Your task to perform on an android device: Open Youtube and go to the subscriptions tab Image 0: 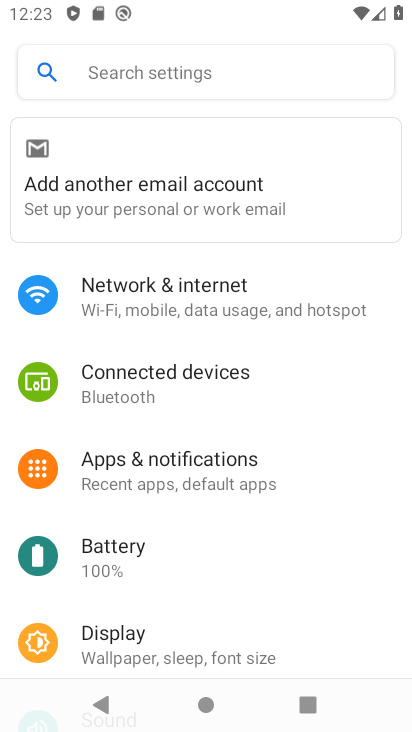
Step 0: press home button
Your task to perform on an android device: Open Youtube and go to the subscriptions tab Image 1: 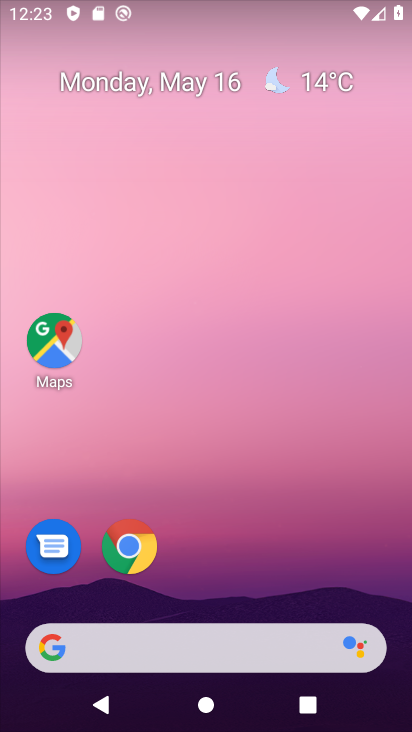
Step 1: drag from (213, 674) to (245, 138)
Your task to perform on an android device: Open Youtube and go to the subscriptions tab Image 2: 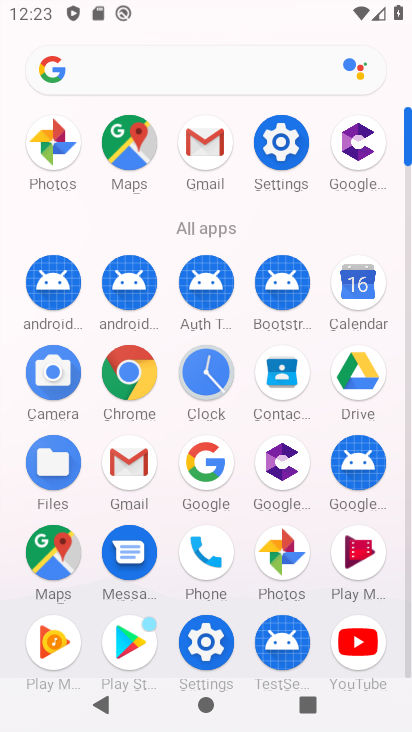
Step 2: click (367, 652)
Your task to perform on an android device: Open Youtube and go to the subscriptions tab Image 3: 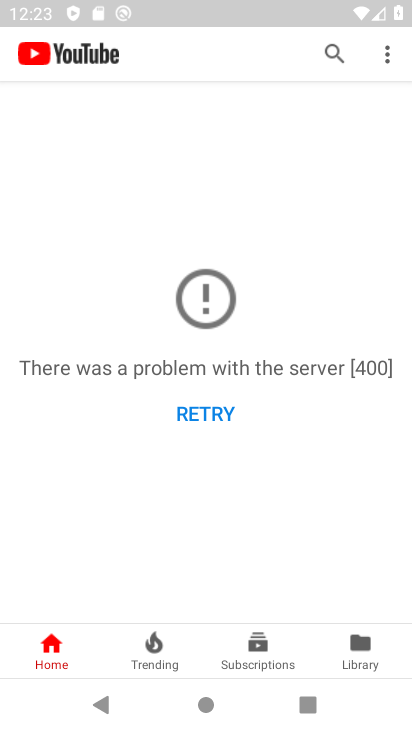
Step 3: click (368, 662)
Your task to perform on an android device: Open Youtube and go to the subscriptions tab Image 4: 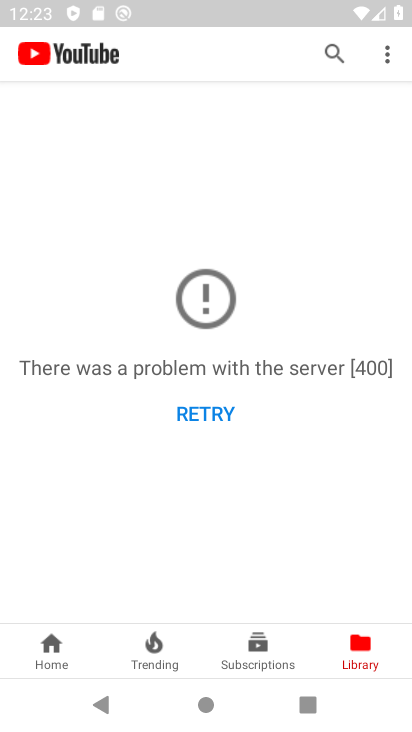
Step 4: task complete